Your task to perform on an android device: delete location history Image 0: 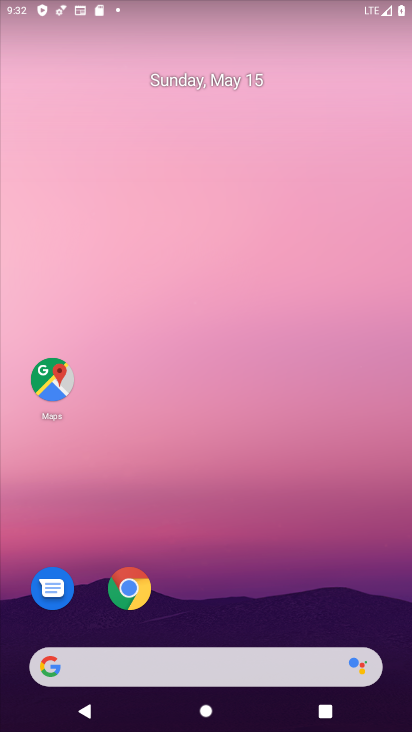
Step 0: click (206, 1)
Your task to perform on an android device: delete location history Image 1: 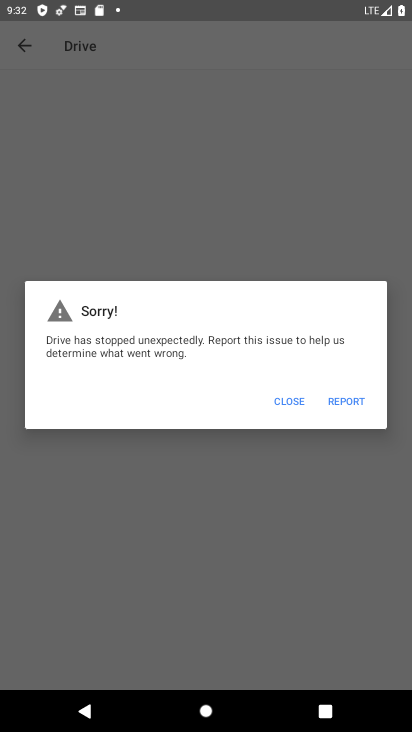
Step 1: click (291, 404)
Your task to perform on an android device: delete location history Image 2: 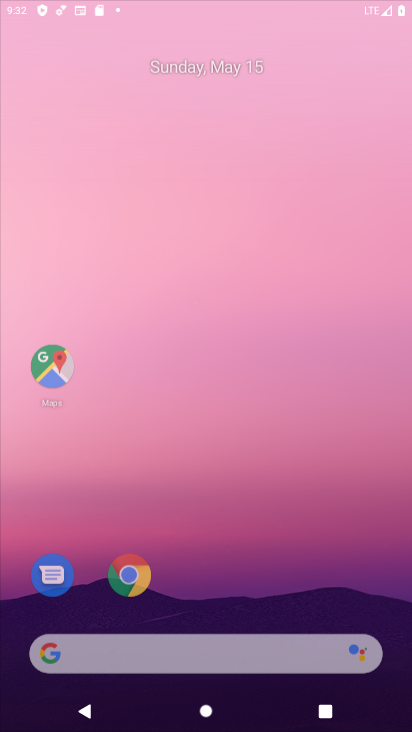
Step 2: click (280, 394)
Your task to perform on an android device: delete location history Image 3: 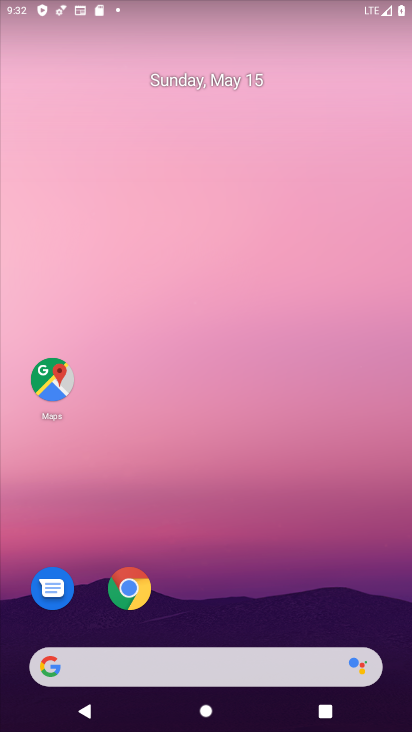
Step 3: drag from (236, 620) to (225, 11)
Your task to perform on an android device: delete location history Image 4: 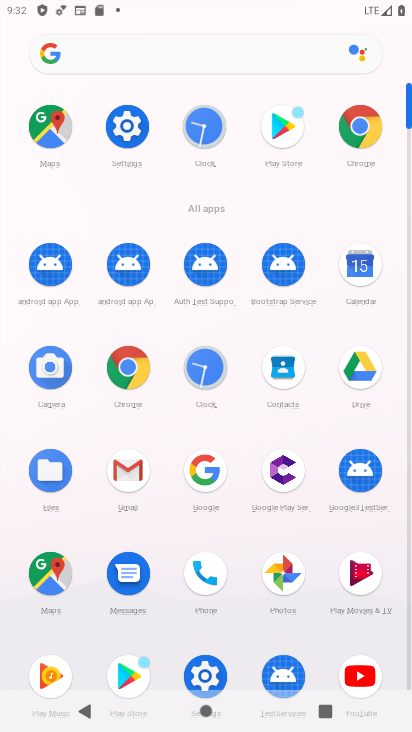
Step 4: click (123, 121)
Your task to perform on an android device: delete location history Image 5: 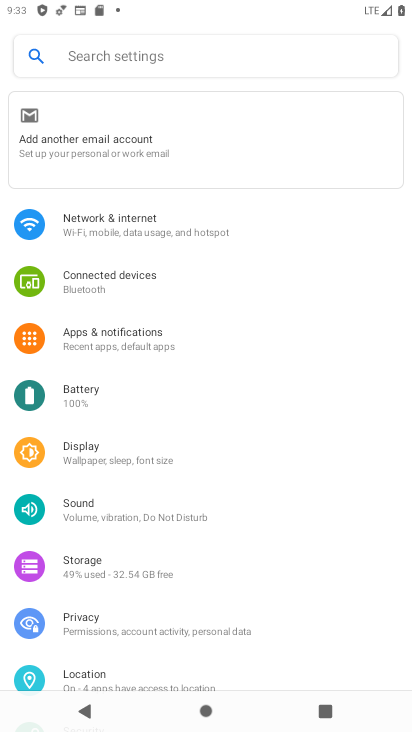
Step 5: click (73, 679)
Your task to perform on an android device: delete location history Image 6: 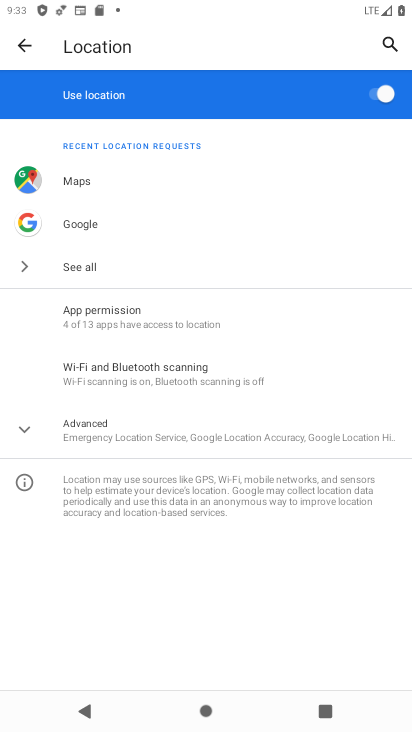
Step 6: click (125, 433)
Your task to perform on an android device: delete location history Image 7: 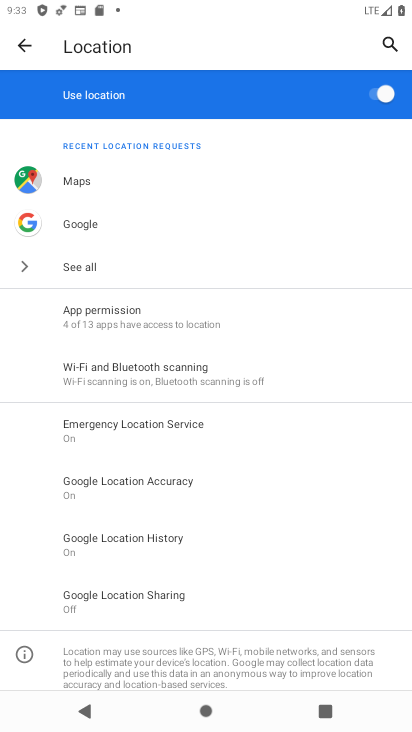
Step 7: click (174, 540)
Your task to perform on an android device: delete location history Image 8: 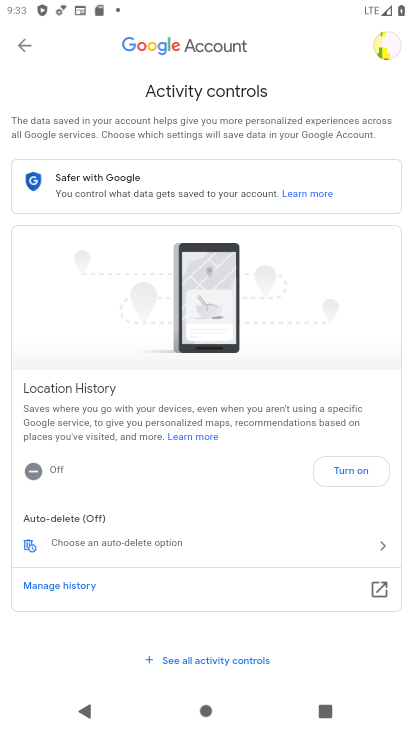
Step 8: drag from (130, 578) to (144, 187)
Your task to perform on an android device: delete location history Image 9: 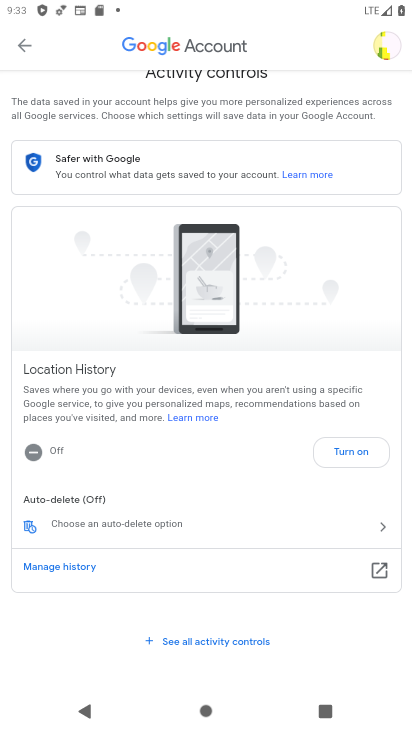
Step 9: click (78, 572)
Your task to perform on an android device: delete location history Image 10: 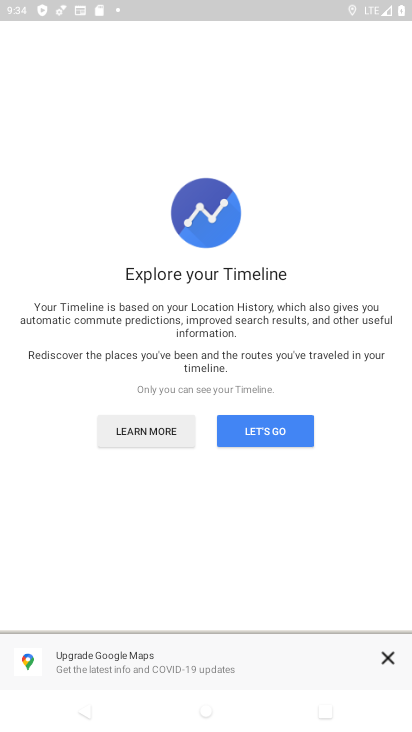
Step 10: click (243, 437)
Your task to perform on an android device: delete location history Image 11: 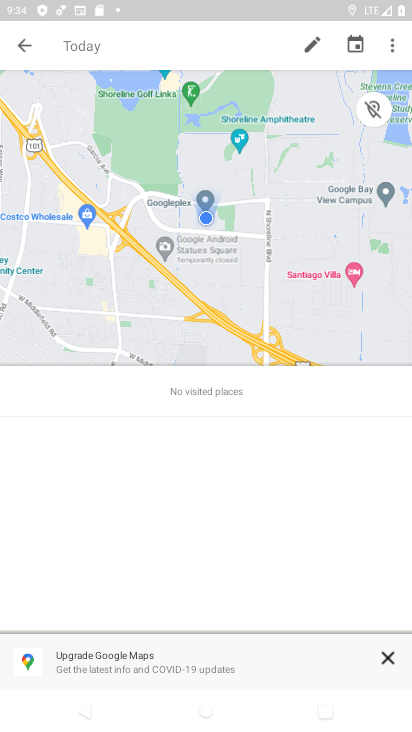
Step 11: click (388, 48)
Your task to perform on an android device: delete location history Image 12: 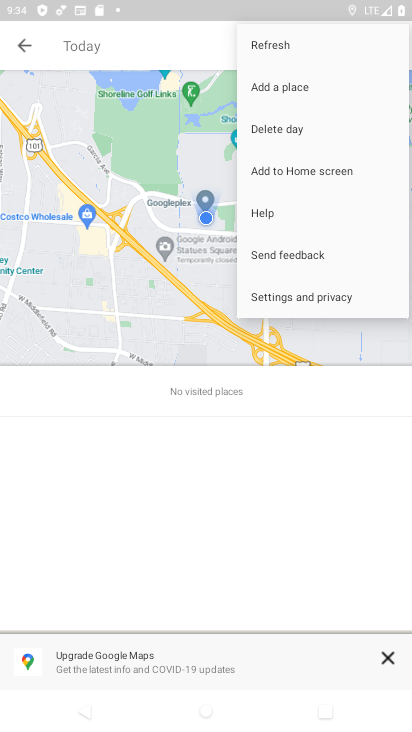
Step 12: click (300, 128)
Your task to perform on an android device: delete location history Image 13: 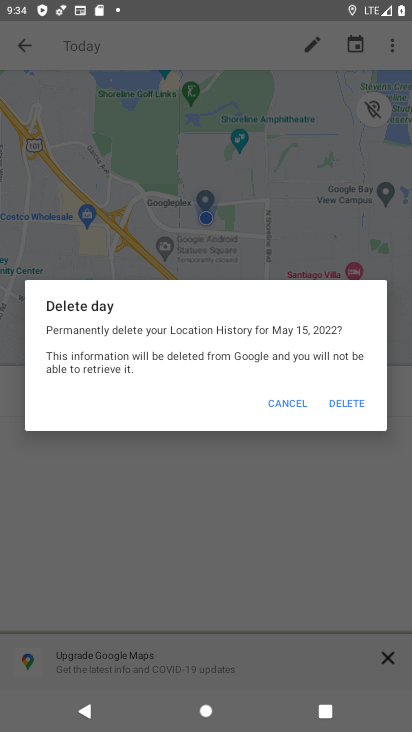
Step 13: click (346, 389)
Your task to perform on an android device: delete location history Image 14: 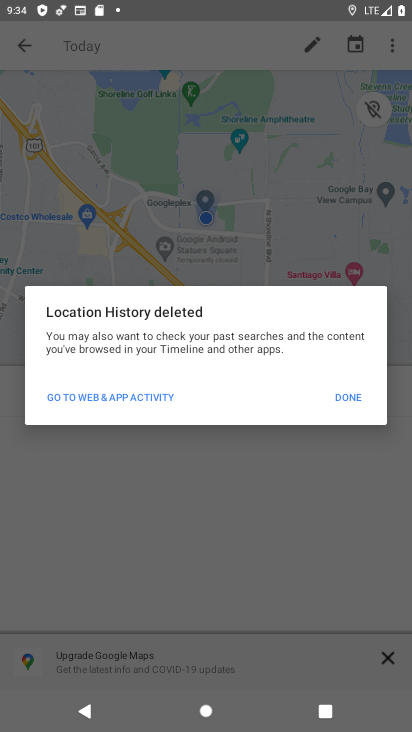
Step 14: click (349, 399)
Your task to perform on an android device: delete location history Image 15: 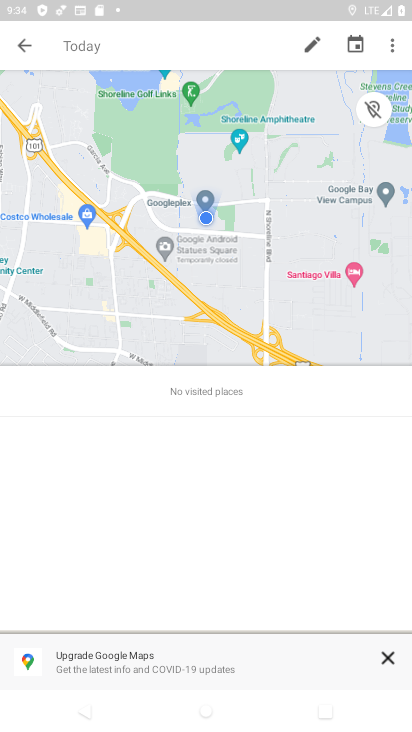
Step 15: task complete